Your task to perform on an android device: Go to ESPN.com Image 0: 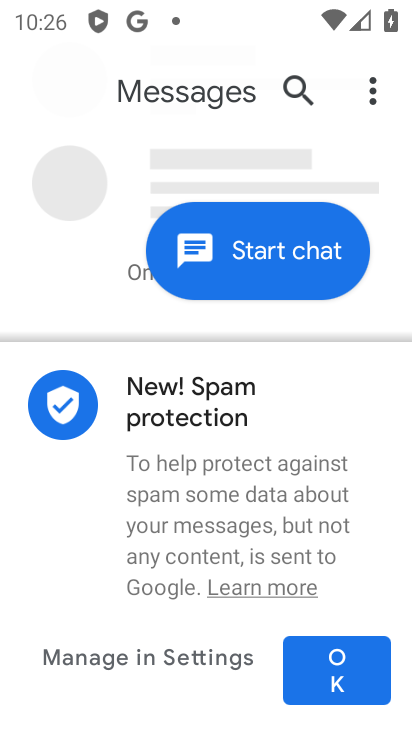
Step 0: press home button
Your task to perform on an android device: Go to ESPN.com Image 1: 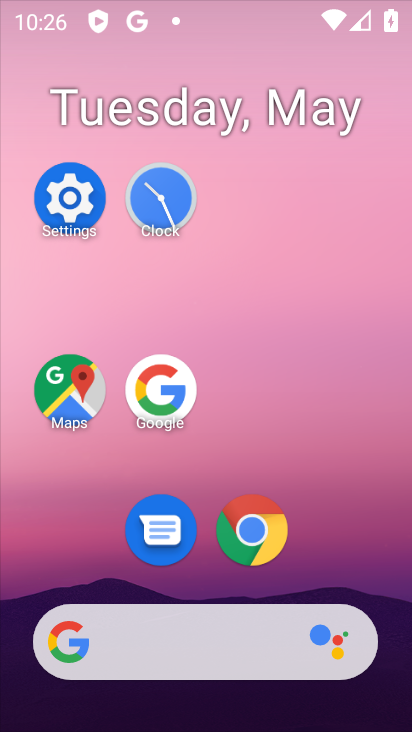
Step 1: click (250, 531)
Your task to perform on an android device: Go to ESPN.com Image 2: 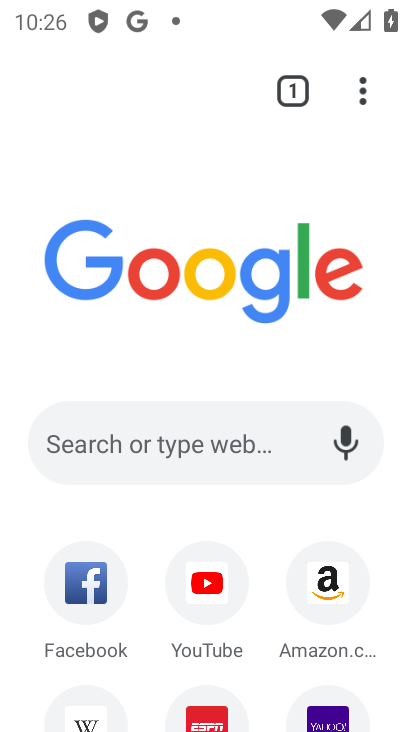
Step 2: click (207, 708)
Your task to perform on an android device: Go to ESPN.com Image 3: 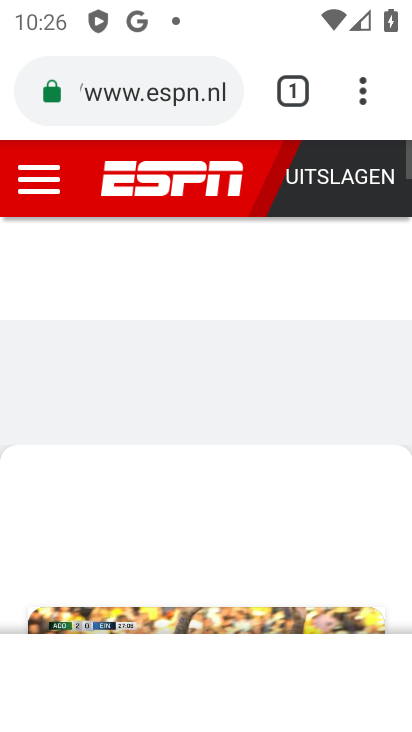
Step 3: task complete